Your task to perform on an android device: Turn off the flashlight Image 0: 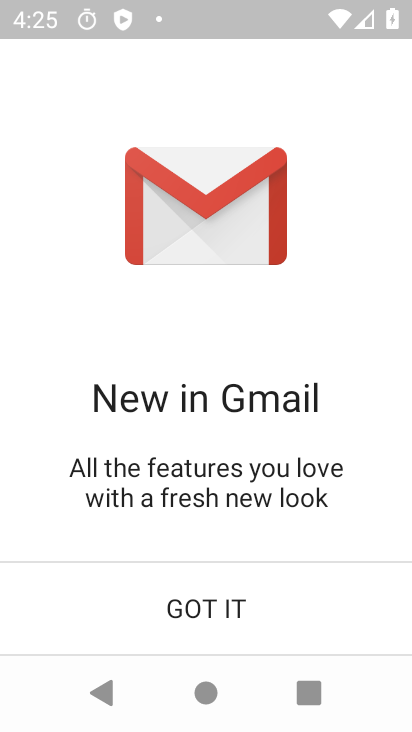
Step 0: press enter
Your task to perform on an android device: Turn off the flashlight Image 1: 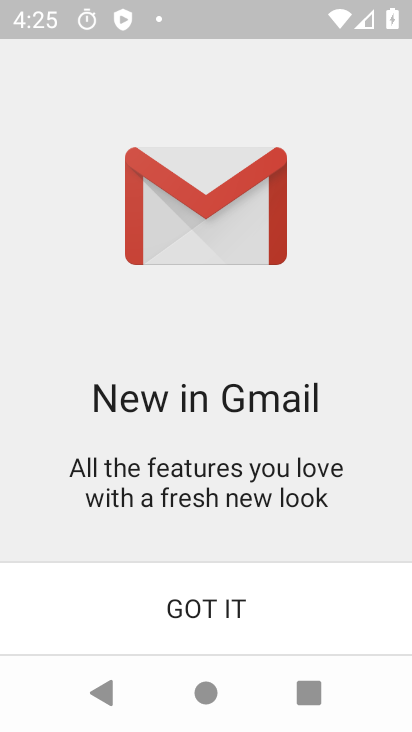
Step 1: press home button
Your task to perform on an android device: Turn off the flashlight Image 2: 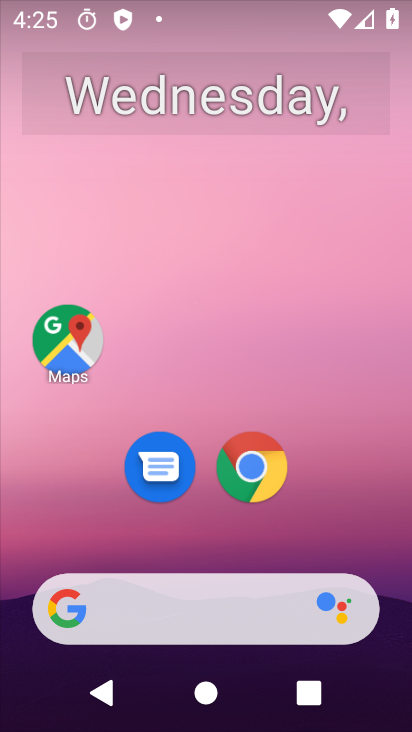
Step 2: drag from (394, 658) to (361, 69)
Your task to perform on an android device: Turn off the flashlight Image 3: 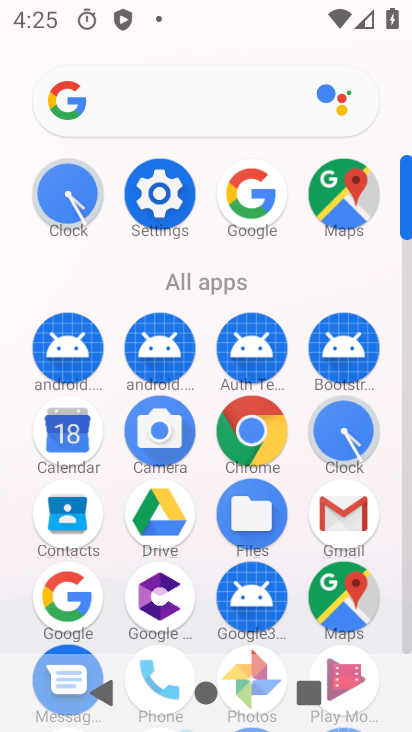
Step 3: click (145, 196)
Your task to perform on an android device: Turn off the flashlight Image 4: 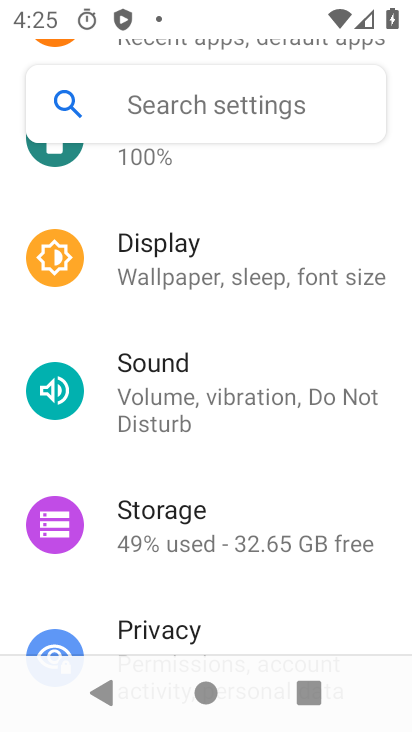
Step 4: click (140, 252)
Your task to perform on an android device: Turn off the flashlight Image 5: 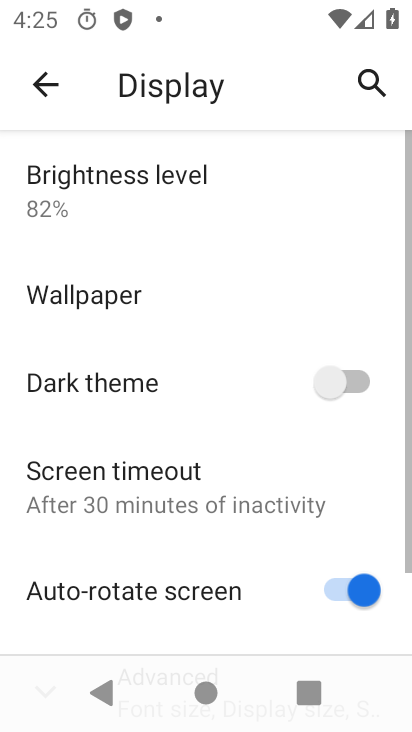
Step 5: task complete